Your task to perform on an android device: Search for vegetarian restaurants on Maps Image 0: 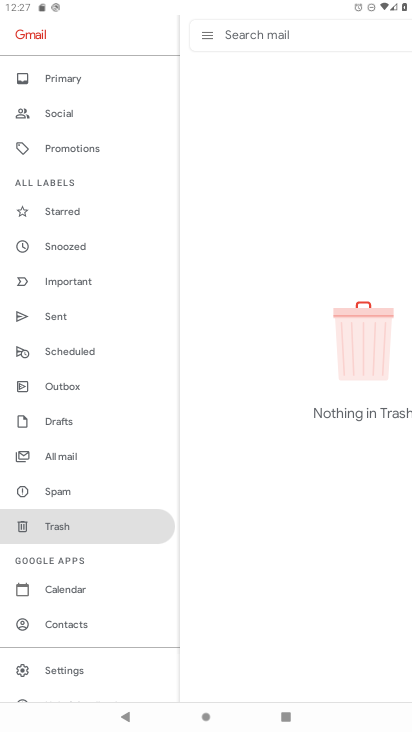
Step 0: press home button
Your task to perform on an android device: Search for vegetarian restaurants on Maps Image 1: 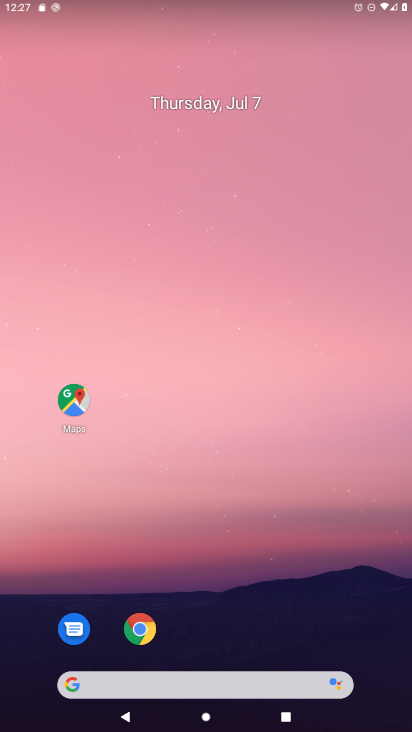
Step 1: click (64, 408)
Your task to perform on an android device: Search for vegetarian restaurants on Maps Image 2: 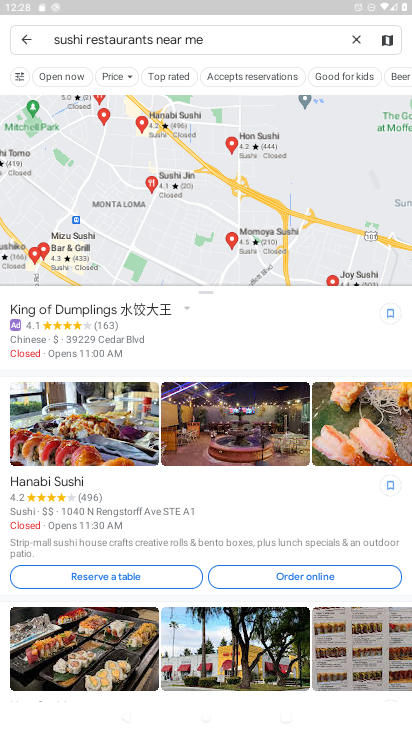
Step 2: click (352, 40)
Your task to perform on an android device: Search for vegetarian restaurants on Maps Image 3: 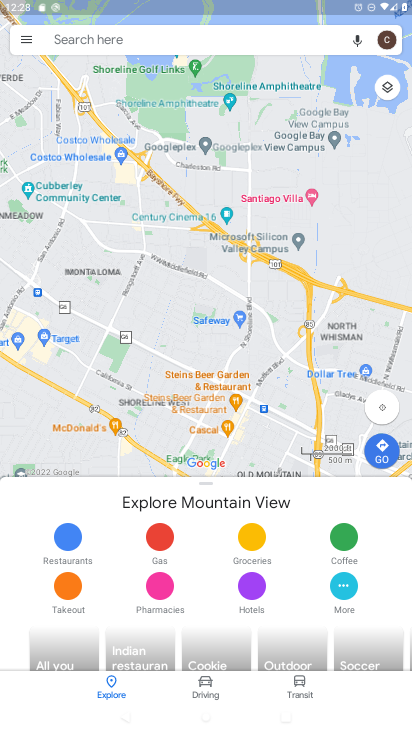
Step 3: click (138, 36)
Your task to perform on an android device: Search for vegetarian restaurants on Maps Image 4: 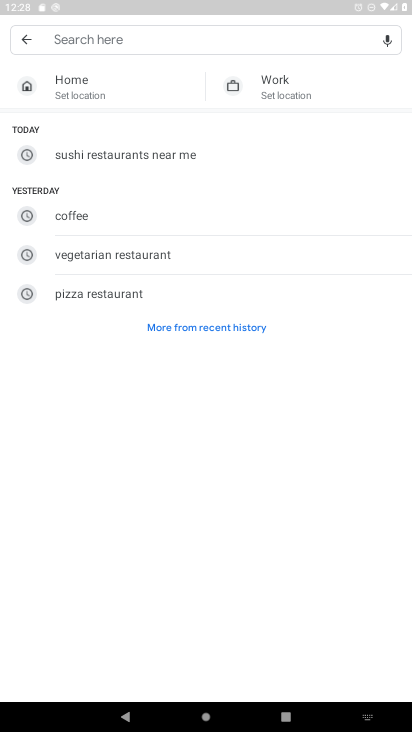
Step 4: click (122, 244)
Your task to perform on an android device: Search for vegetarian restaurants on Maps Image 5: 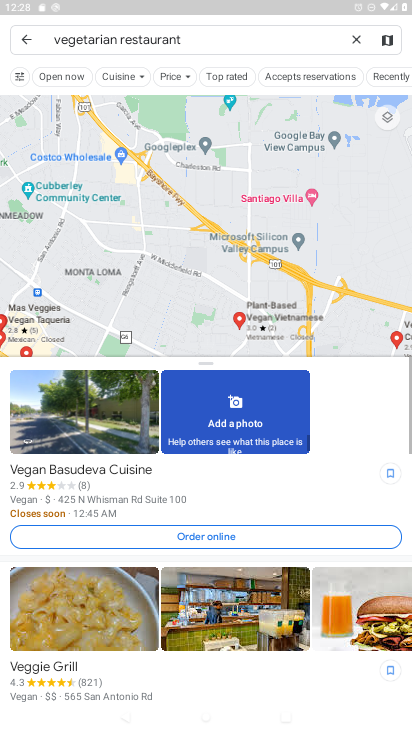
Step 5: task complete